Your task to perform on an android device: toggle sleep mode Image 0: 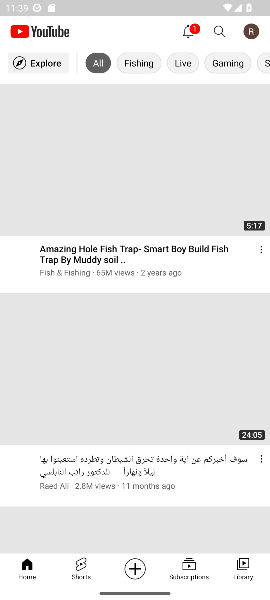
Step 0: press back button
Your task to perform on an android device: toggle sleep mode Image 1: 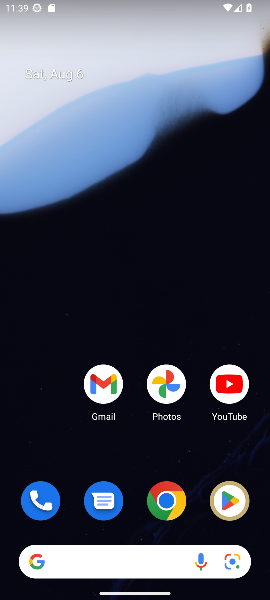
Step 1: task complete